Your task to perform on an android device: Open CNN.com Image 0: 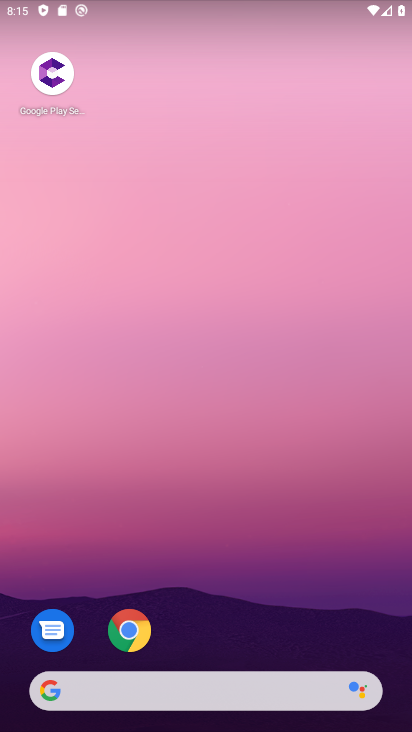
Step 0: click (130, 630)
Your task to perform on an android device: Open CNN.com Image 1: 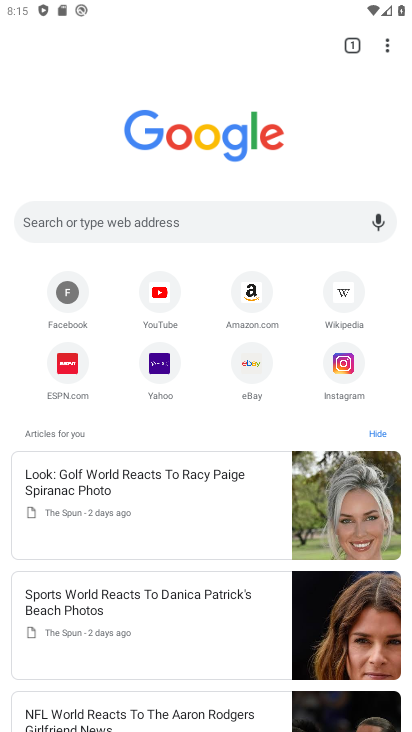
Step 1: click (190, 216)
Your task to perform on an android device: Open CNN.com Image 2: 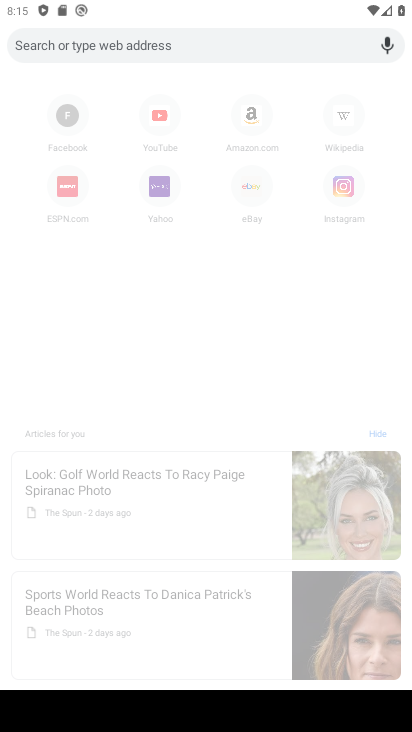
Step 2: type "CNN.com"
Your task to perform on an android device: Open CNN.com Image 3: 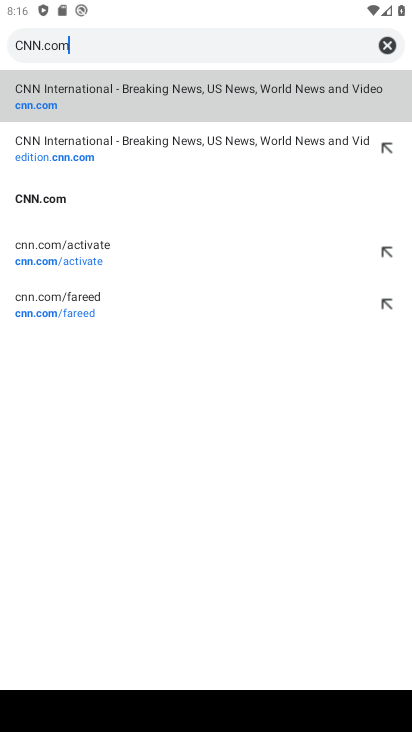
Step 3: click (39, 201)
Your task to perform on an android device: Open CNN.com Image 4: 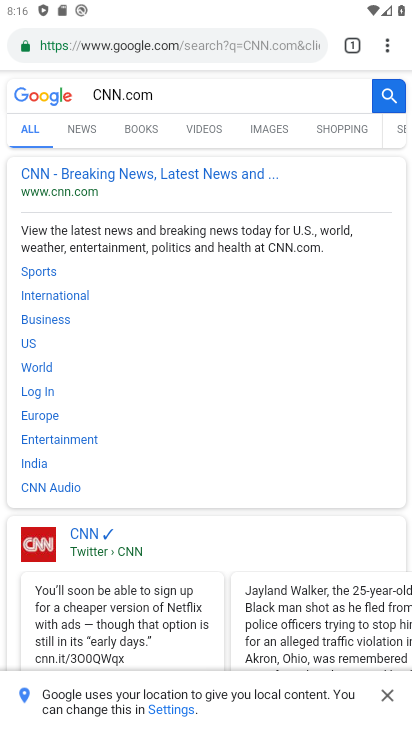
Step 4: click (140, 165)
Your task to perform on an android device: Open CNN.com Image 5: 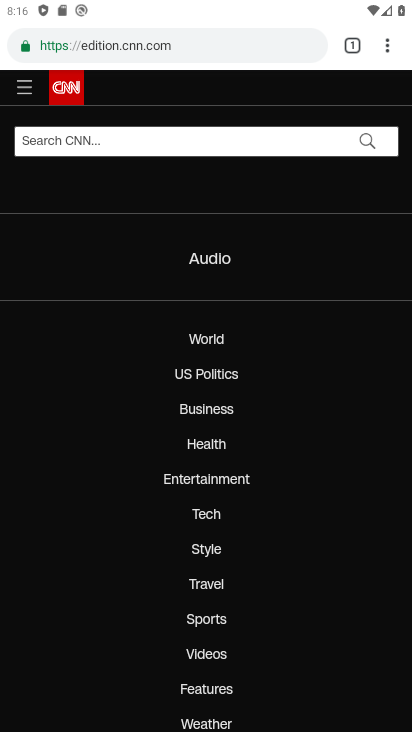
Step 5: task complete